Your task to perform on an android device: see creations saved in the google photos Image 0: 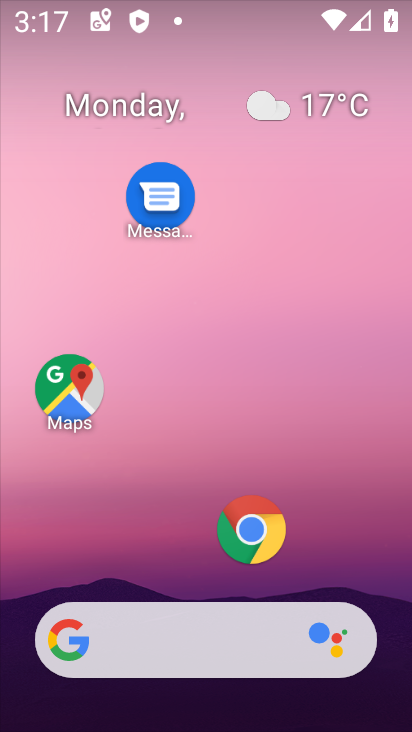
Step 0: press home button
Your task to perform on an android device: see creations saved in the google photos Image 1: 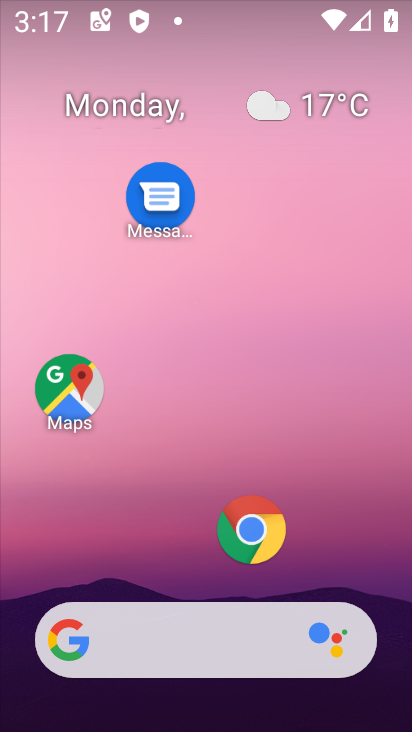
Step 1: drag from (199, 575) to (259, 166)
Your task to perform on an android device: see creations saved in the google photos Image 2: 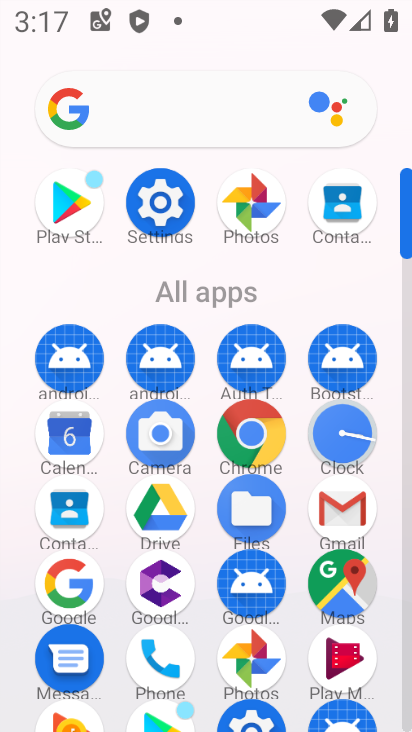
Step 2: click (248, 650)
Your task to perform on an android device: see creations saved in the google photos Image 3: 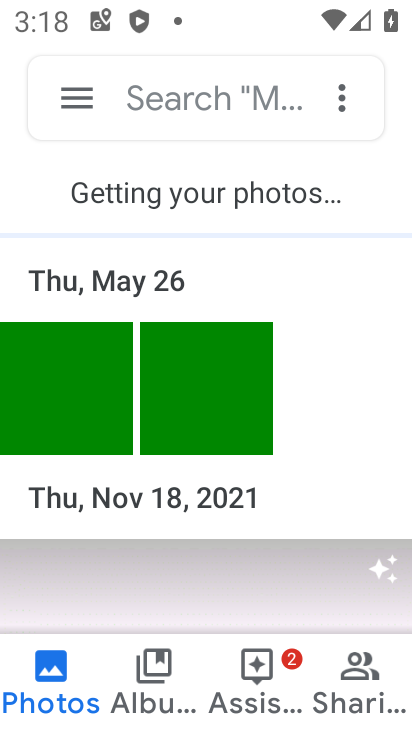
Step 3: click (168, 89)
Your task to perform on an android device: see creations saved in the google photos Image 4: 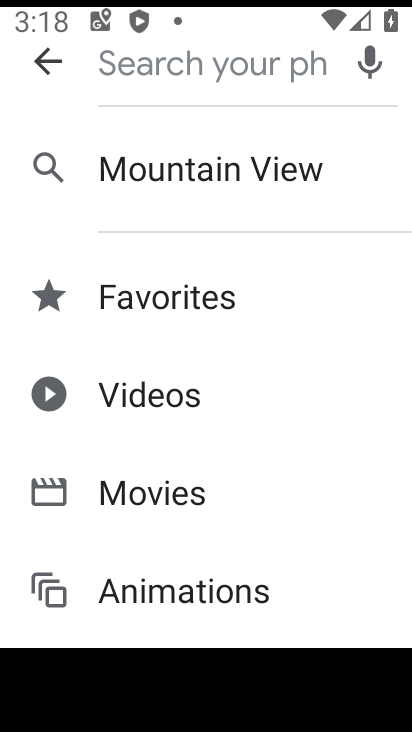
Step 4: drag from (239, 577) to (305, 177)
Your task to perform on an android device: see creations saved in the google photos Image 5: 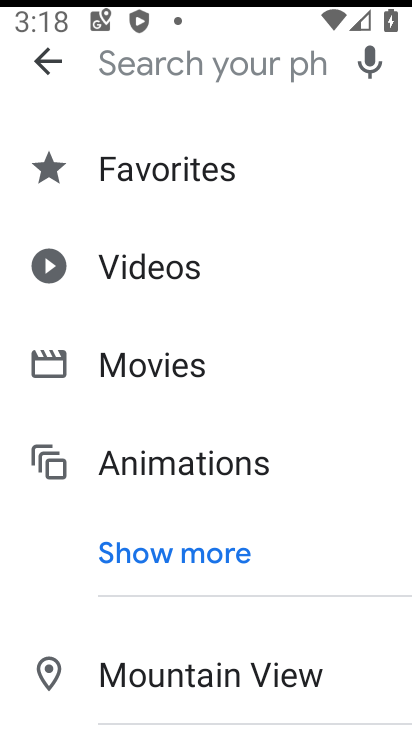
Step 5: click (180, 553)
Your task to perform on an android device: see creations saved in the google photos Image 6: 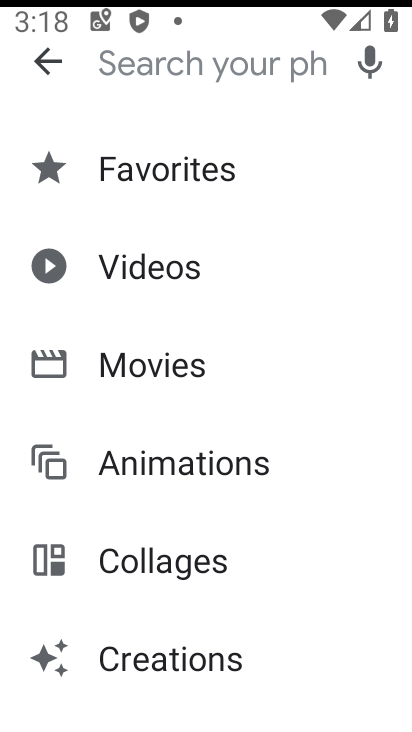
Step 6: click (263, 657)
Your task to perform on an android device: see creations saved in the google photos Image 7: 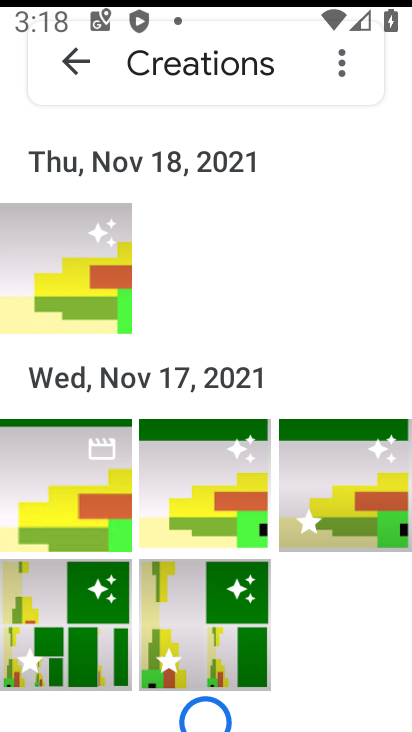
Step 7: task complete